Your task to perform on an android device: turn off data saver in the chrome app Image 0: 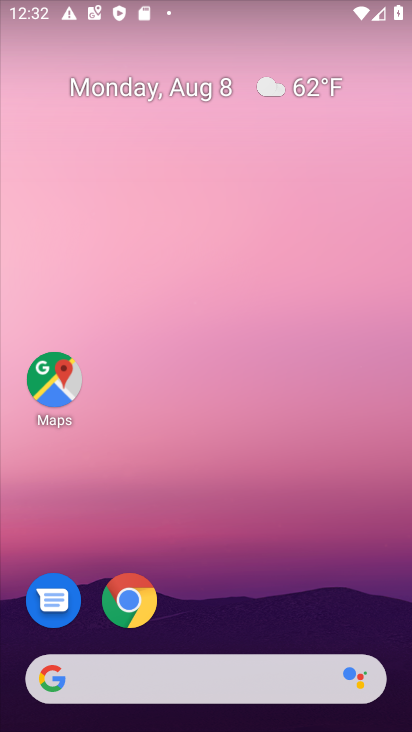
Step 0: click (133, 617)
Your task to perform on an android device: turn off data saver in the chrome app Image 1: 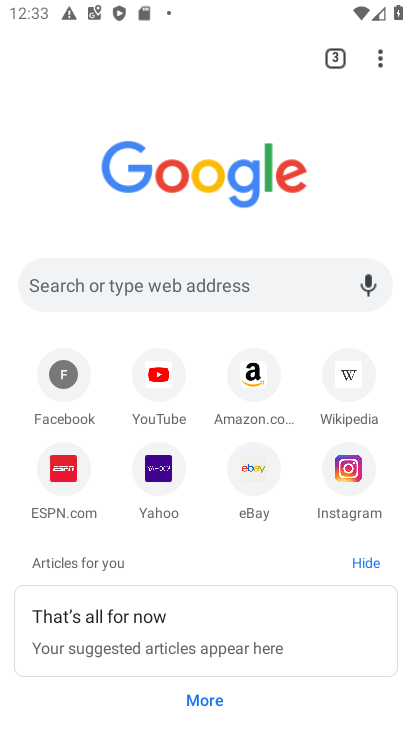
Step 1: click (379, 49)
Your task to perform on an android device: turn off data saver in the chrome app Image 2: 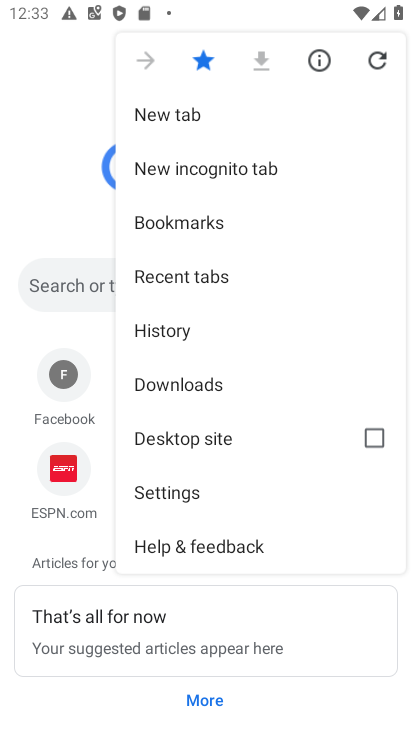
Step 2: click (176, 485)
Your task to perform on an android device: turn off data saver in the chrome app Image 3: 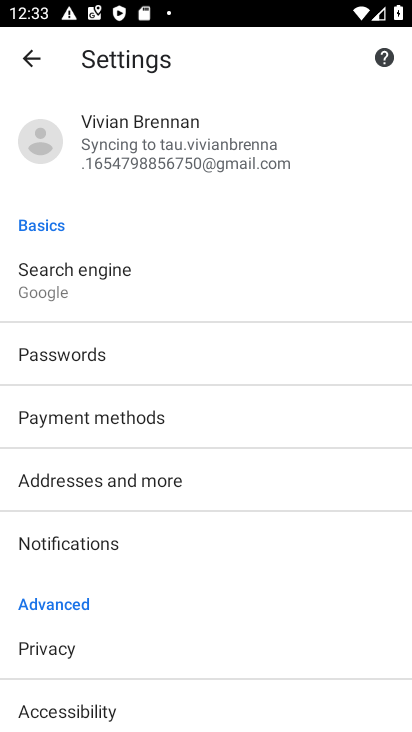
Step 3: drag from (183, 618) to (217, 219)
Your task to perform on an android device: turn off data saver in the chrome app Image 4: 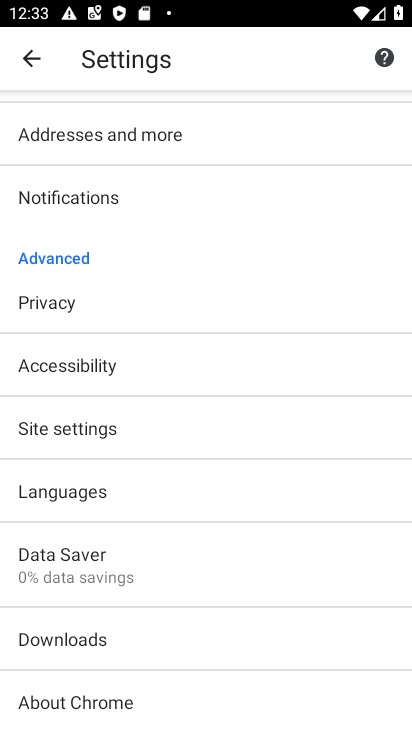
Step 4: click (115, 582)
Your task to perform on an android device: turn off data saver in the chrome app Image 5: 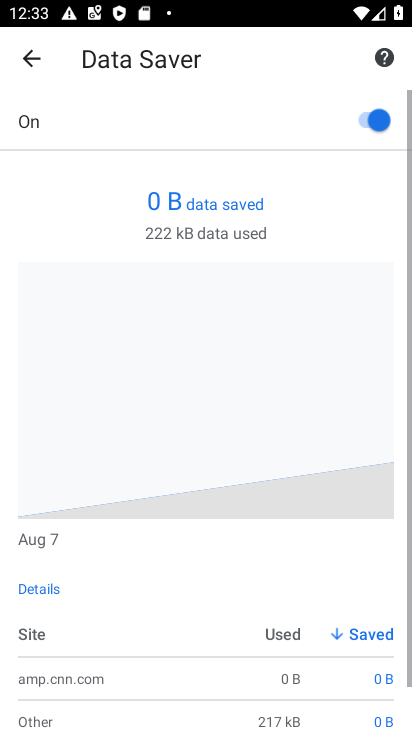
Step 5: click (363, 126)
Your task to perform on an android device: turn off data saver in the chrome app Image 6: 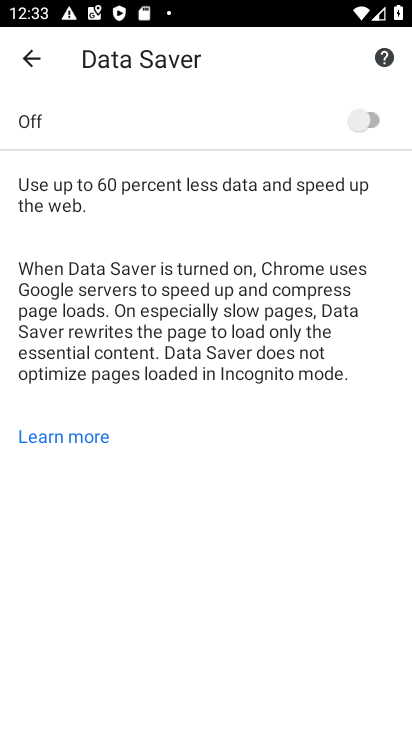
Step 6: task complete